Your task to perform on an android device: Toggle the flashlight Image 0: 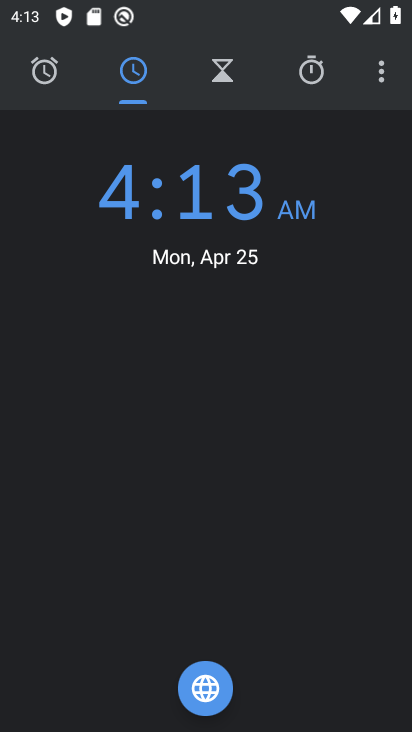
Step 0: press home button
Your task to perform on an android device: Toggle the flashlight Image 1: 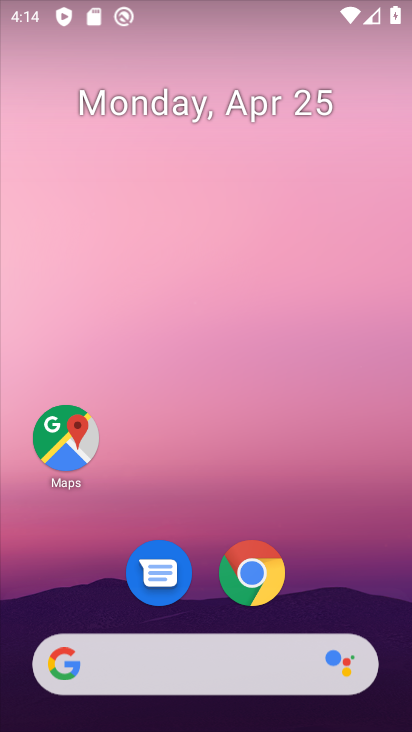
Step 1: drag from (339, 290) to (315, 18)
Your task to perform on an android device: Toggle the flashlight Image 2: 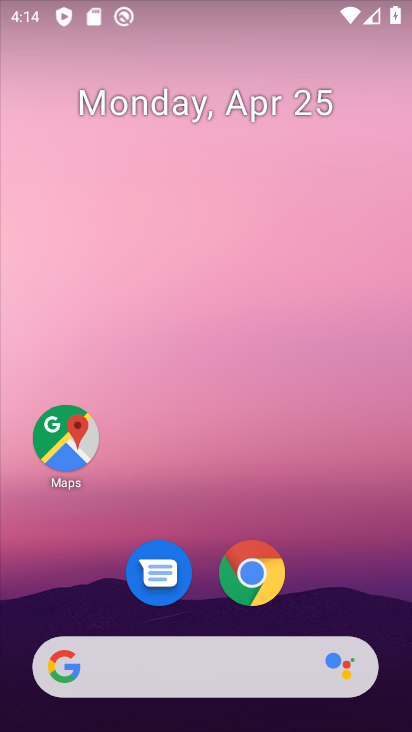
Step 2: drag from (322, 612) to (279, 14)
Your task to perform on an android device: Toggle the flashlight Image 3: 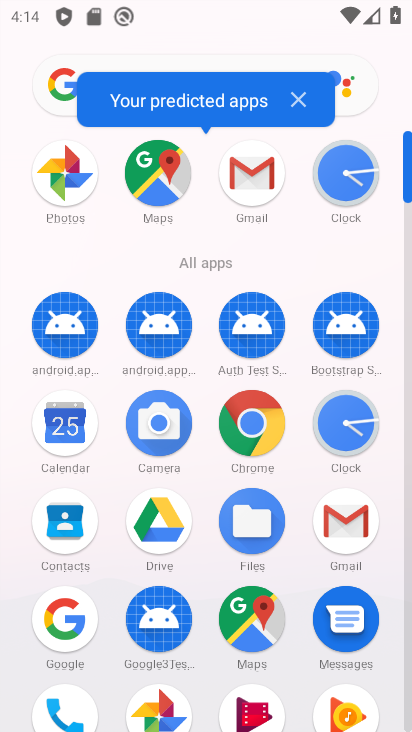
Step 3: drag from (167, 352) to (157, 148)
Your task to perform on an android device: Toggle the flashlight Image 4: 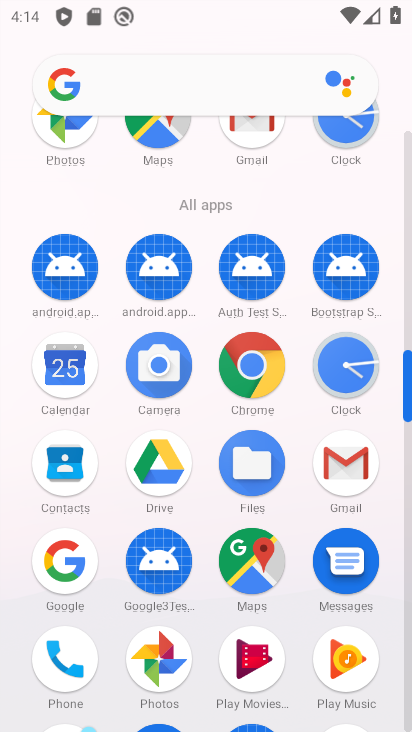
Step 4: drag from (201, 643) to (215, 220)
Your task to perform on an android device: Toggle the flashlight Image 5: 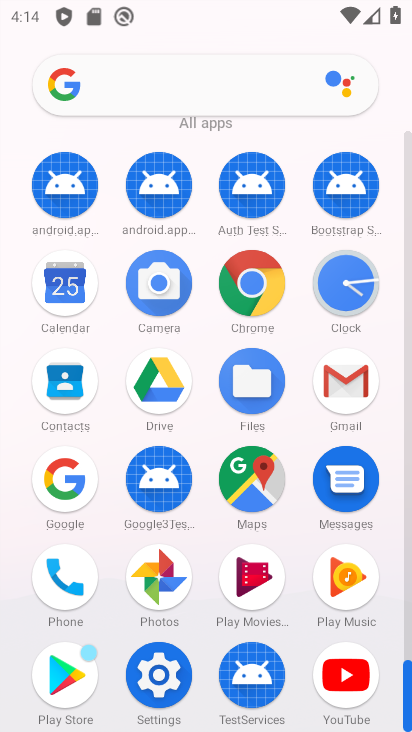
Step 5: click (157, 662)
Your task to perform on an android device: Toggle the flashlight Image 6: 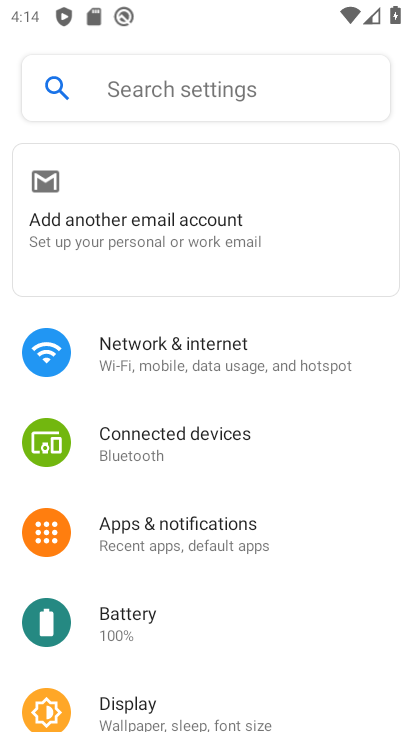
Step 6: task complete